Your task to perform on an android device: open the mobile data screen to see how much data has been used Image 0: 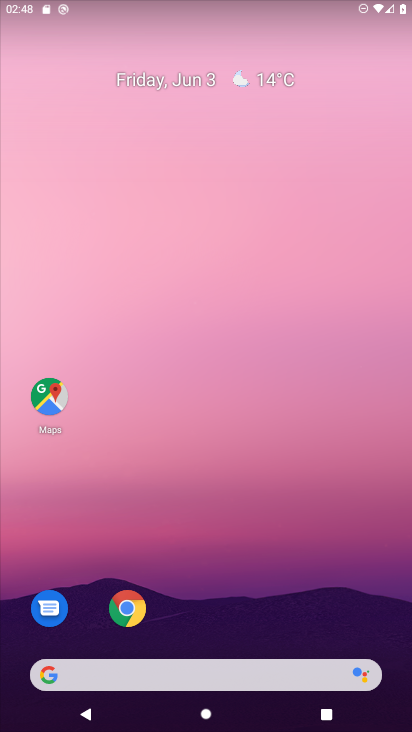
Step 0: drag from (253, 542) to (220, 219)
Your task to perform on an android device: open the mobile data screen to see how much data has been used Image 1: 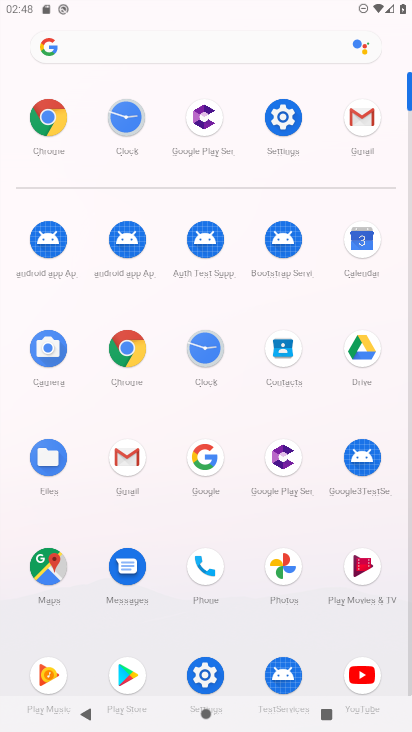
Step 1: click (290, 109)
Your task to perform on an android device: open the mobile data screen to see how much data has been used Image 2: 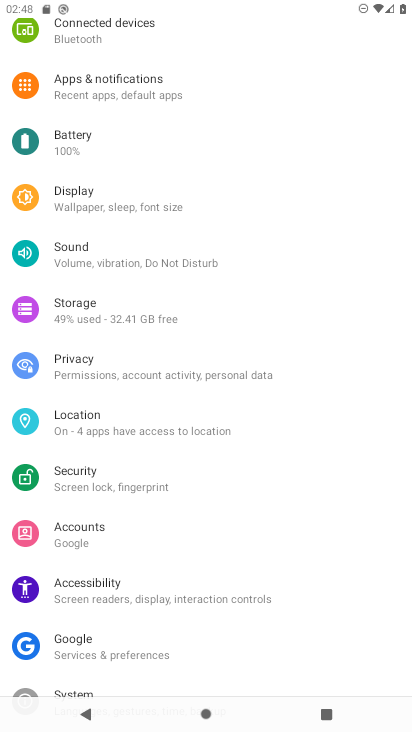
Step 2: drag from (162, 276) to (164, 559)
Your task to perform on an android device: open the mobile data screen to see how much data has been used Image 3: 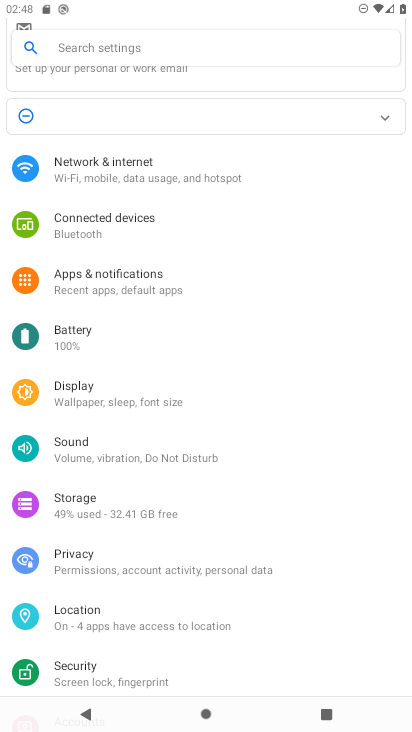
Step 3: click (135, 178)
Your task to perform on an android device: open the mobile data screen to see how much data has been used Image 4: 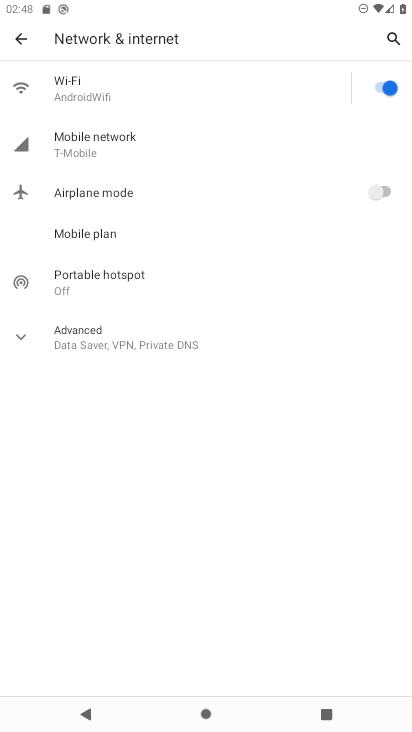
Step 4: click (113, 141)
Your task to perform on an android device: open the mobile data screen to see how much data has been used Image 5: 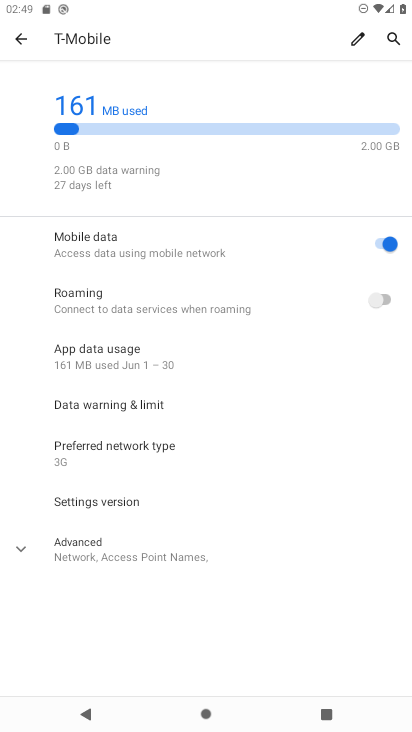
Step 5: task complete